Your task to perform on an android device: Show me recent news Image 0: 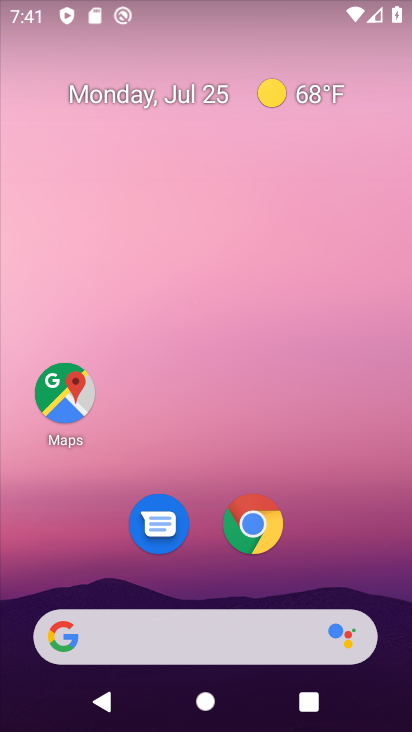
Step 0: click (255, 628)
Your task to perform on an android device: Show me recent news Image 1: 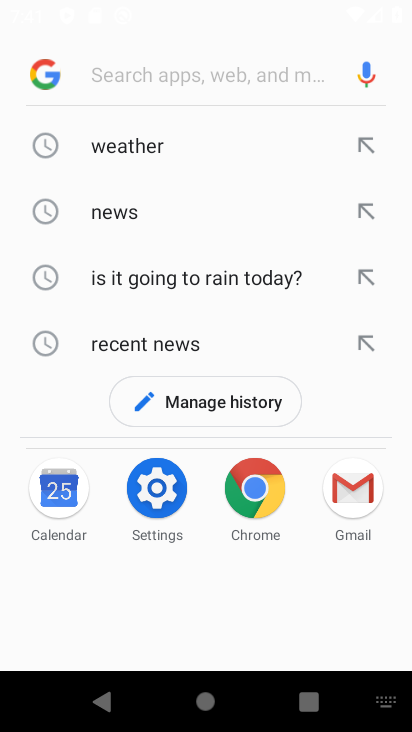
Step 1: click (137, 348)
Your task to perform on an android device: Show me recent news Image 2: 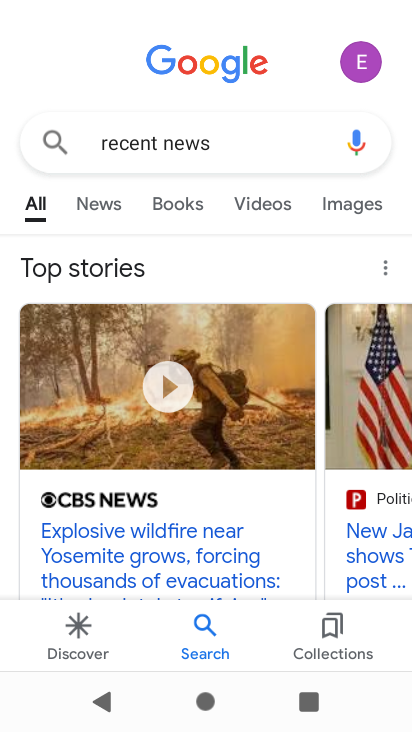
Step 2: task complete